Your task to perform on an android device: Open calendar and show me the first week of next month Image 0: 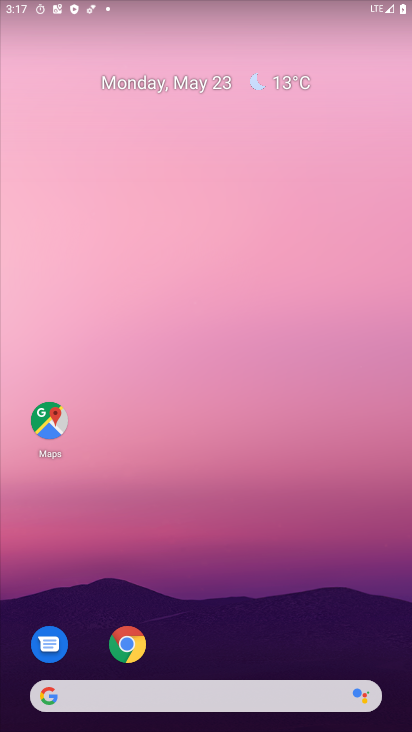
Step 0: drag from (226, 666) to (264, 663)
Your task to perform on an android device: Open calendar and show me the first week of next month Image 1: 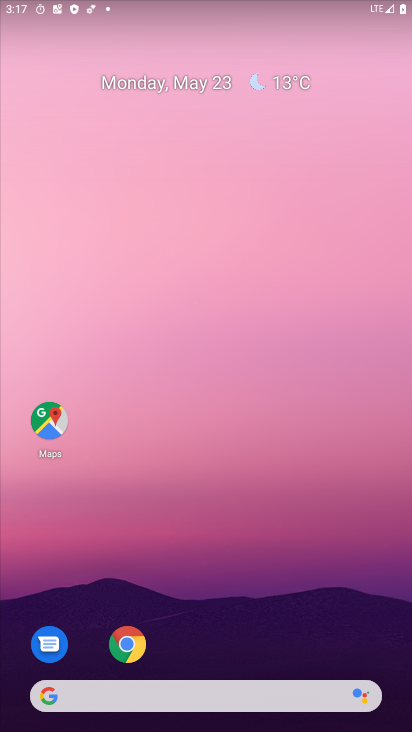
Step 1: drag from (239, 677) to (189, 22)
Your task to perform on an android device: Open calendar and show me the first week of next month Image 2: 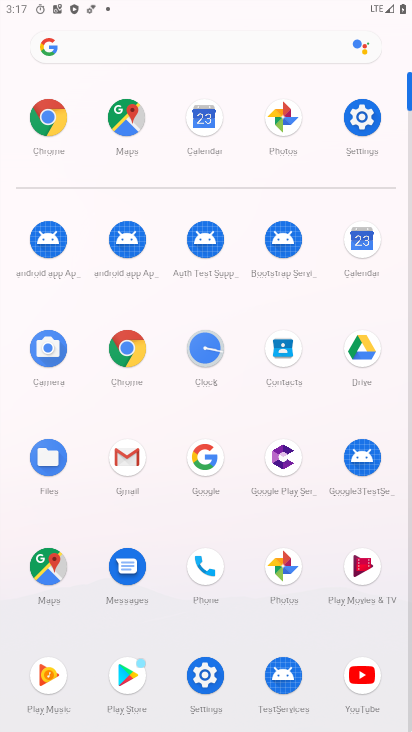
Step 2: click (383, 248)
Your task to perform on an android device: Open calendar and show me the first week of next month Image 3: 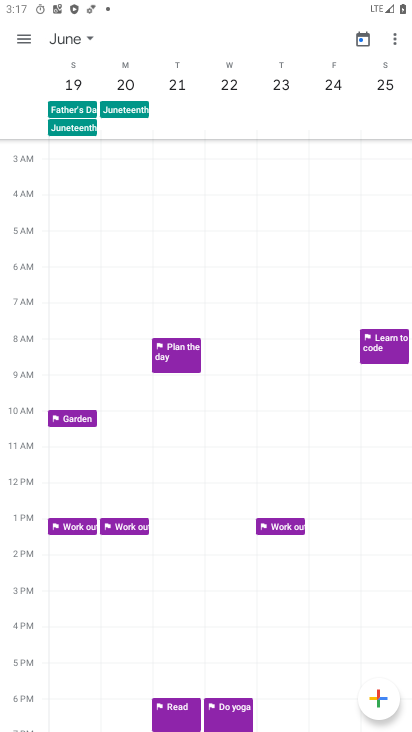
Step 3: click (353, 39)
Your task to perform on an android device: Open calendar and show me the first week of next month Image 4: 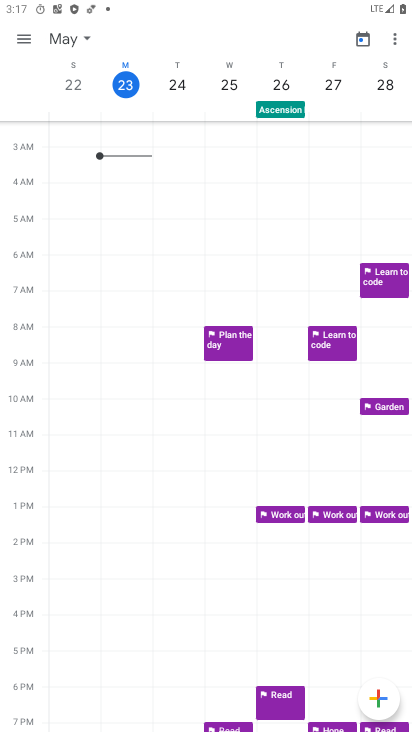
Step 4: task complete